Your task to perform on an android device: read, delete, or share a saved page in the chrome app Image 0: 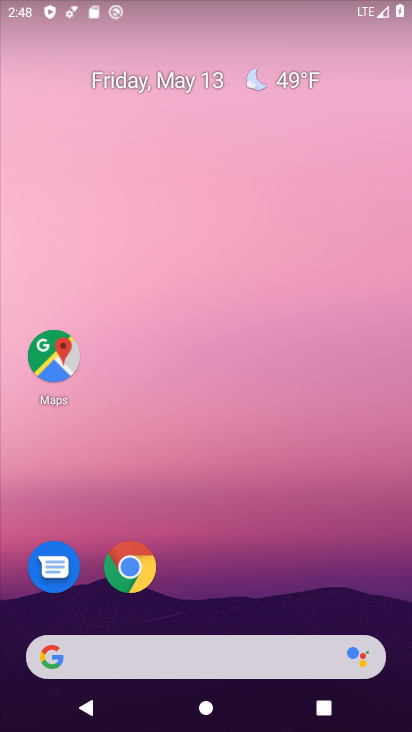
Step 0: click (146, 577)
Your task to perform on an android device: read, delete, or share a saved page in the chrome app Image 1: 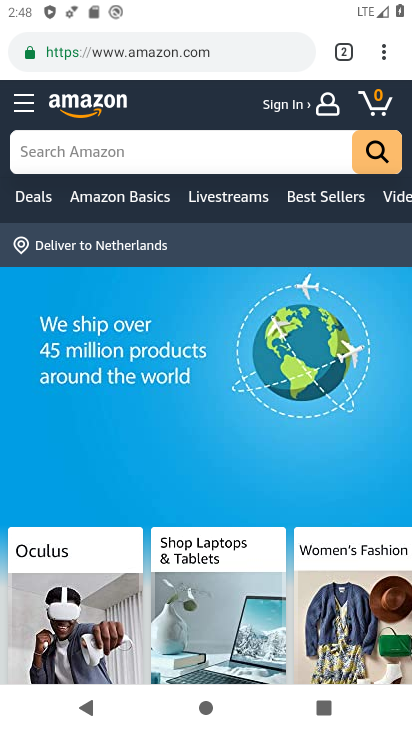
Step 1: click (379, 50)
Your task to perform on an android device: read, delete, or share a saved page in the chrome app Image 2: 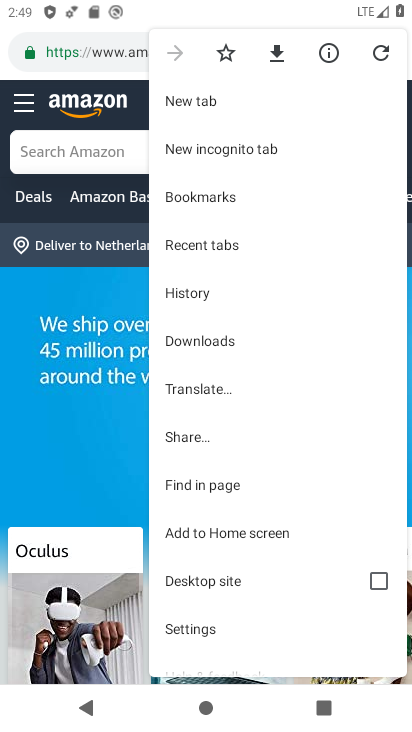
Step 2: click (201, 345)
Your task to perform on an android device: read, delete, or share a saved page in the chrome app Image 3: 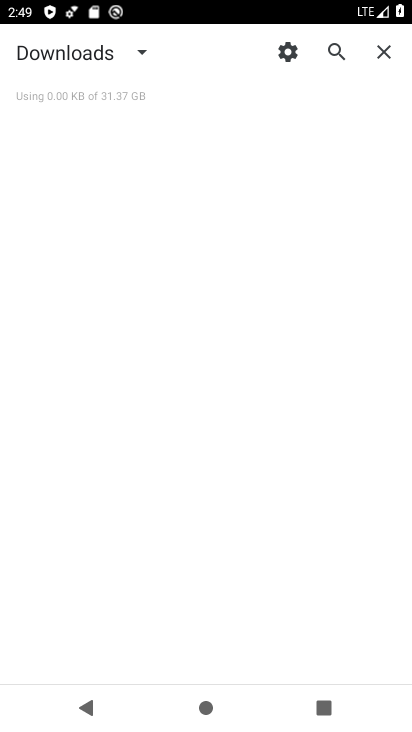
Step 3: task complete